Your task to perform on an android device: delete a single message in the gmail app Image 0: 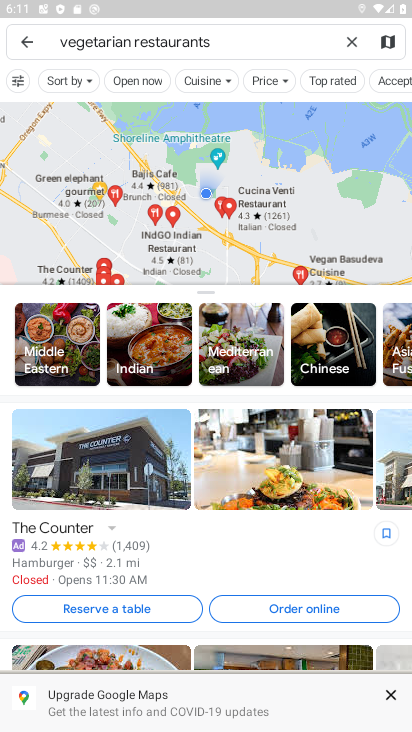
Step 0: press home button
Your task to perform on an android device: delete a single message in the gmail app Image 1: 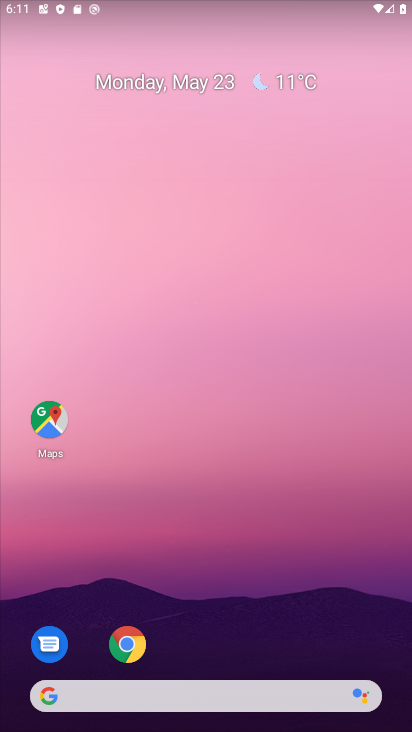
Step 1: drag from (169, 661) to (122, 280)
Your task to perform on an android device: delete a single message in the gmail app Image 2: 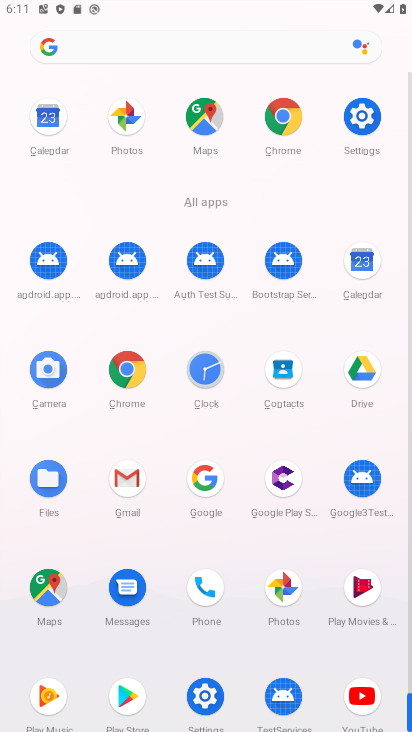
Step 2: click (126, 483)
Your task to perform on an android device: delete a single message in the gmail app Image 3: 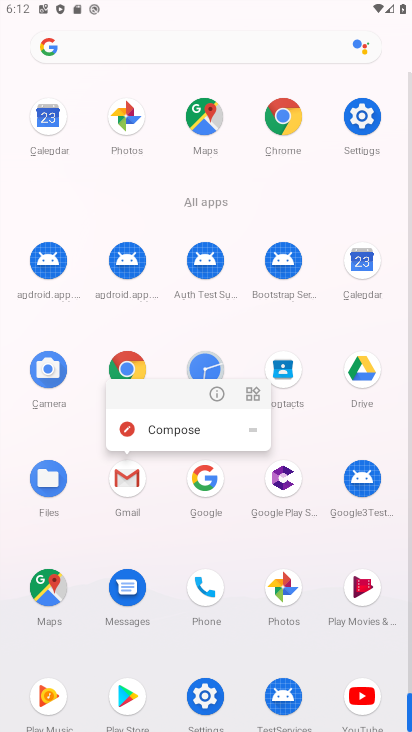
Step 3: click (123, 514)
Your task to perform on an android device: delete a single message in the gmail app Image 4: 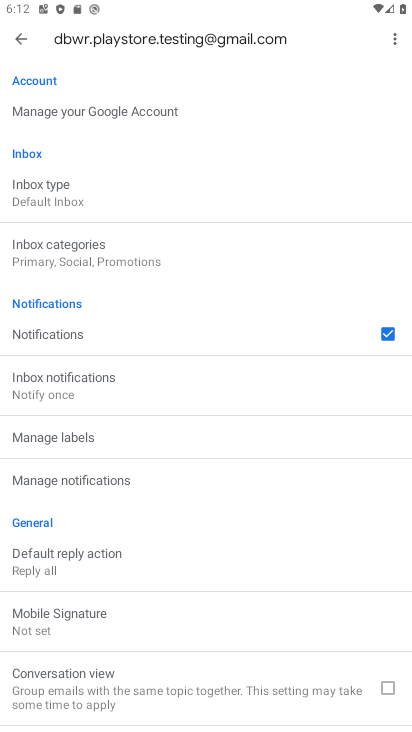
Step 4: click (17, 43)
Your task to perform on an android device: delete a single message in the gmail app Image 5: 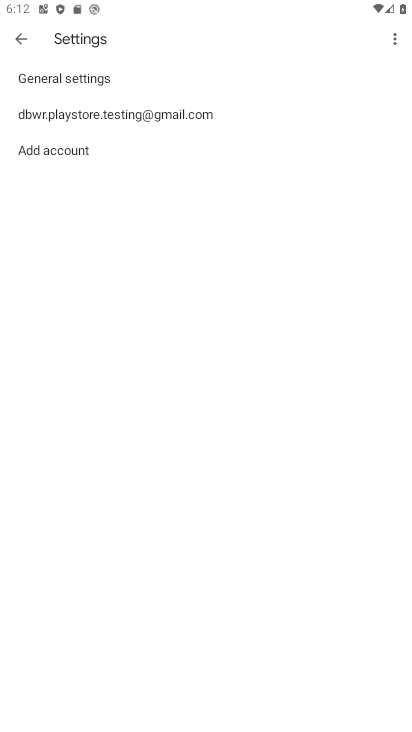
Step 5: click (17, 43)
Your task to perform on an android device: delete a single message in the gmail app Image 6: 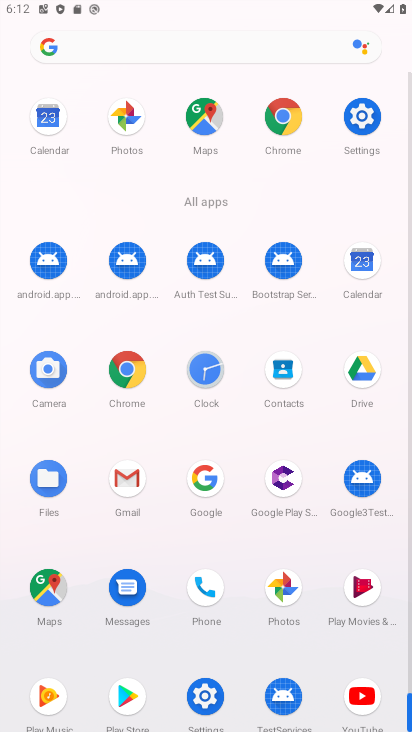
Step 6: click (126, 486)
Your task to perform on an android device: delete a single message in the gmail app Image 7: 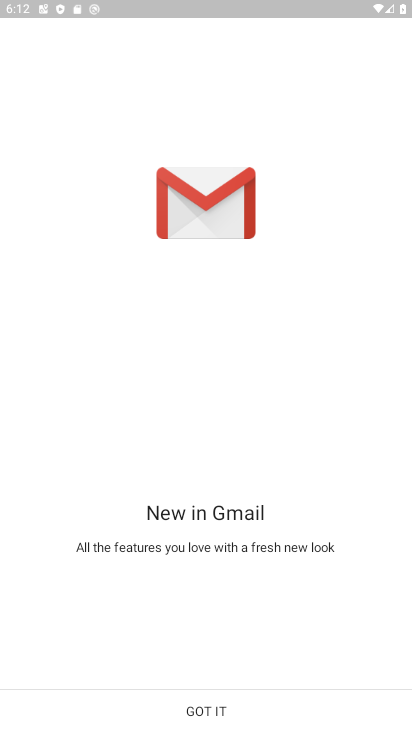
Step 7: click (201, 714)
Your task to perform on an android device: delete a single message in the gmail app Image 8: 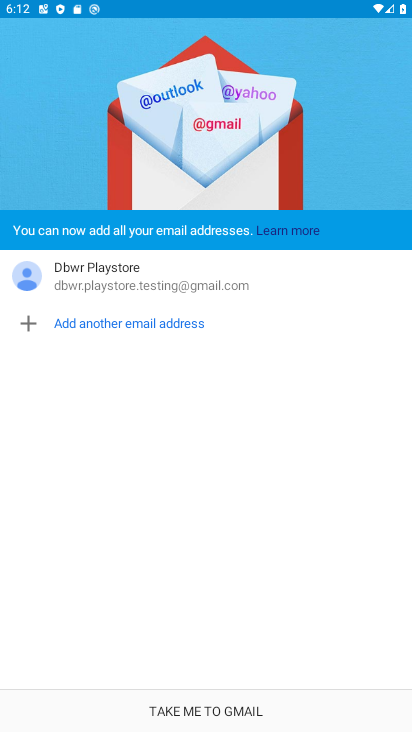
Step 8: click (201, 714)
Your task to perform on an android device: delete a single message in the gmail app Image 9: 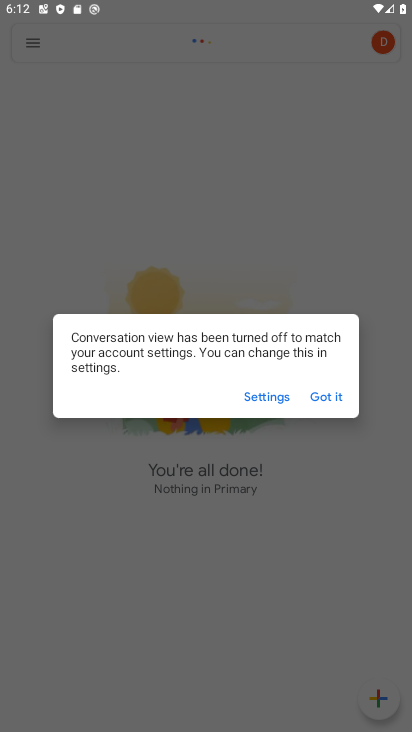
Step 9: click (319, 393)
Your task to perform on an android device: delete a single message in the gmail app Image 10: 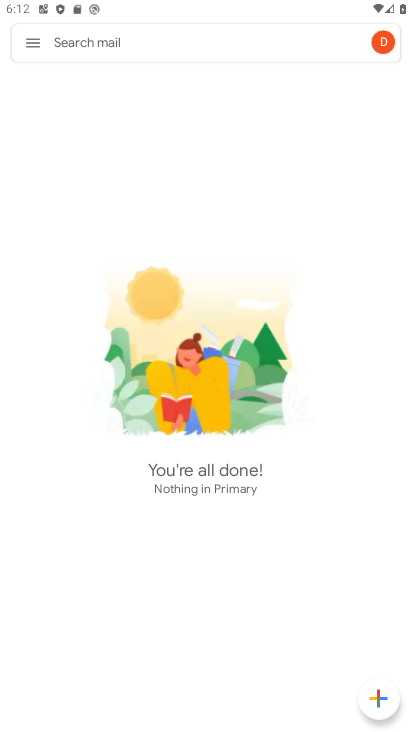
Step 10: click (34, 45)
Your task to perform on an android device: delete a single message in the gmail app Image 11: 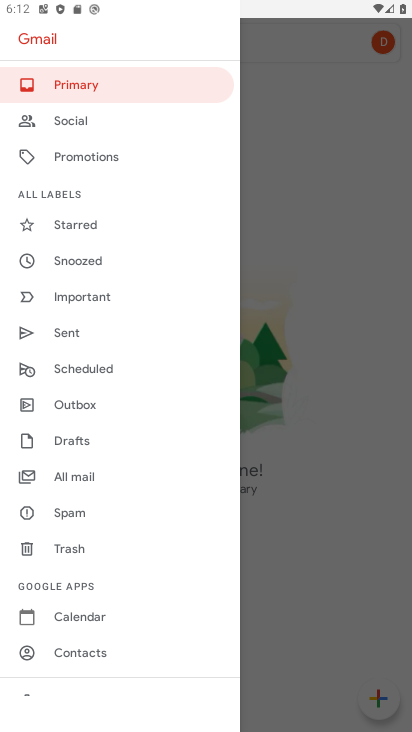
Step 11: click (71, 483)
Your task to perform on an android device: delete a single message in the gmail app Image 12: 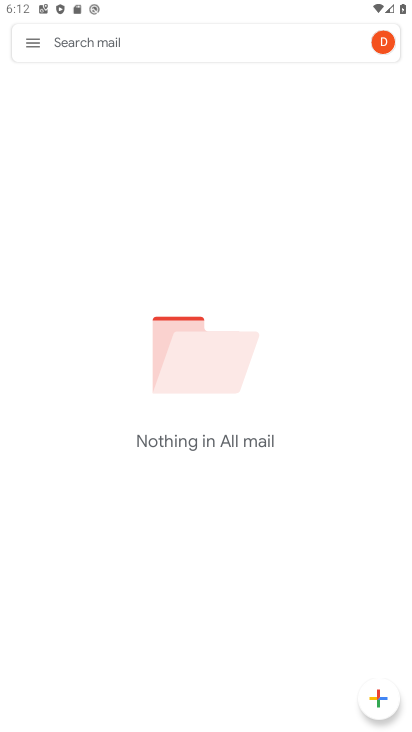
Step 12: task complete